Your task to perform on an android device: open app "Messages" (install if not already installed) and enter user name: "Hersey@inbox.com" and password: "facings" Image 0: 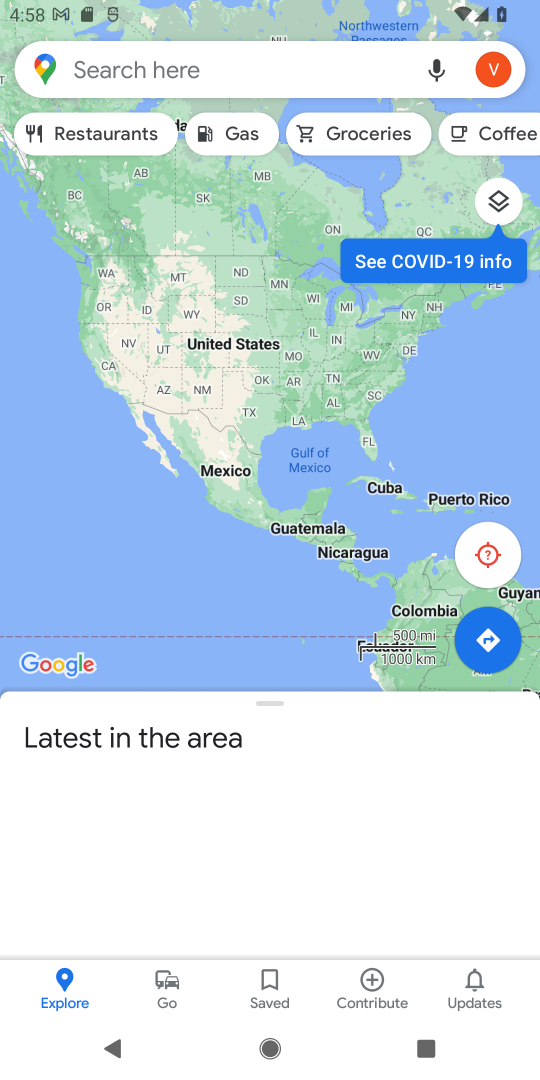
Step 0: press home button
Your task to perform on an android device: open app "Messages" (install if not already installed) and enter user name: "Hersey@inbox.com" and password: "facings" Image 1: 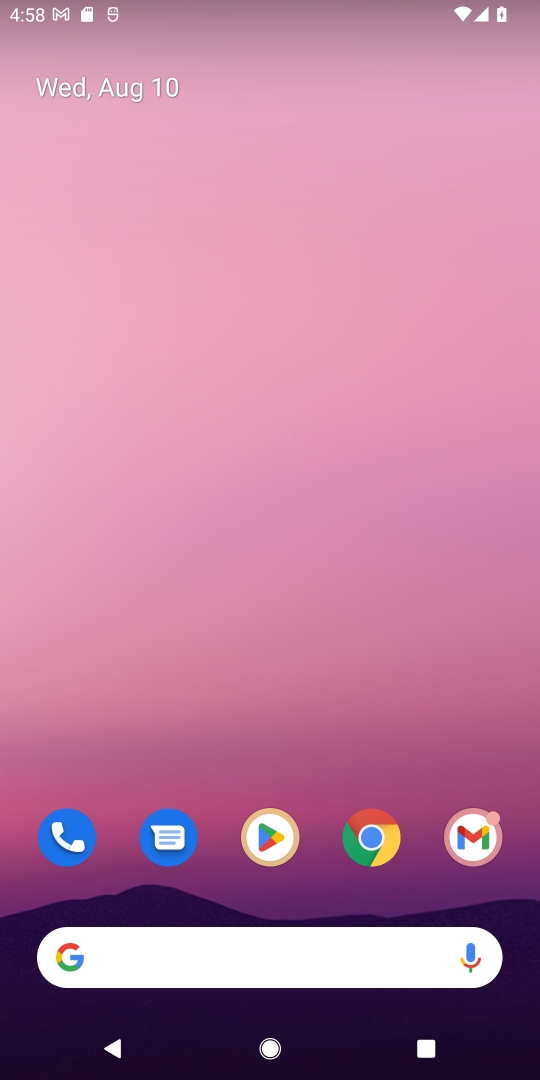
Step 1: click (278, 841)
Your task to perform on an android device: open app "Messages" (install if not already installed) and enter user name: "Hersey@inbox.com" and password: "facings" Image 2: 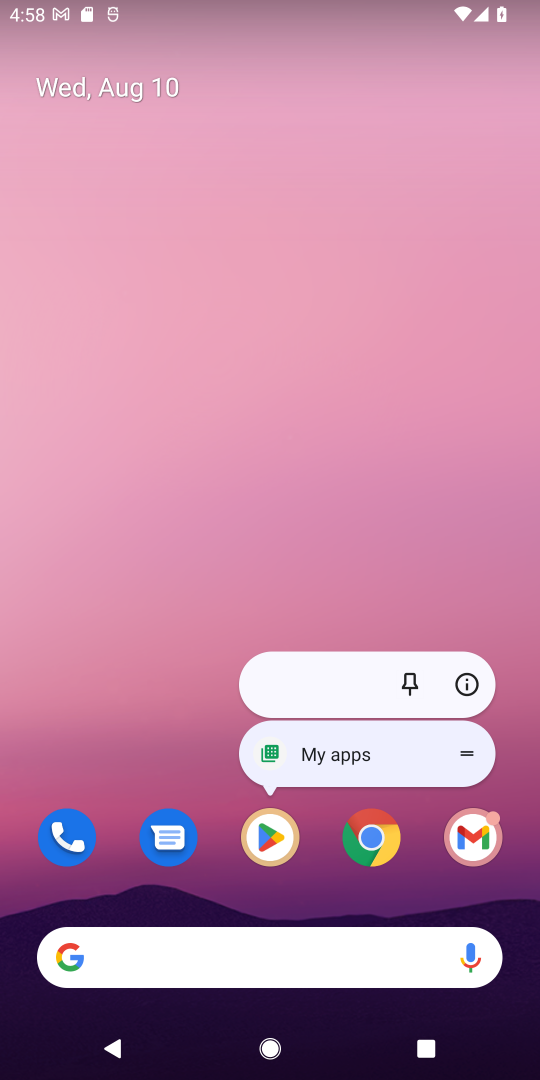
Step 2: click (266, 836)
Your task to perform on an android device: open app "Messages" (install if not already installed) and enter user name: "Hersey@inbox.com" and password: "facings" Image 3: 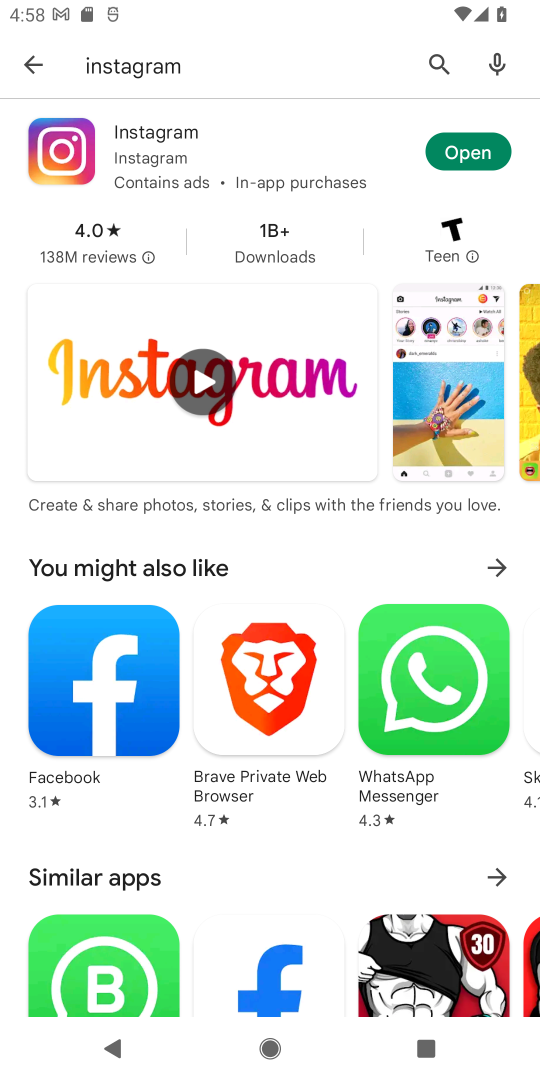
Step 3: click (433, 67)
Your task to perform on an android device: open app "Messages" (install if not already installed) and enter user name: "Hersey@inbox.com" and password: "facings" Image 4: 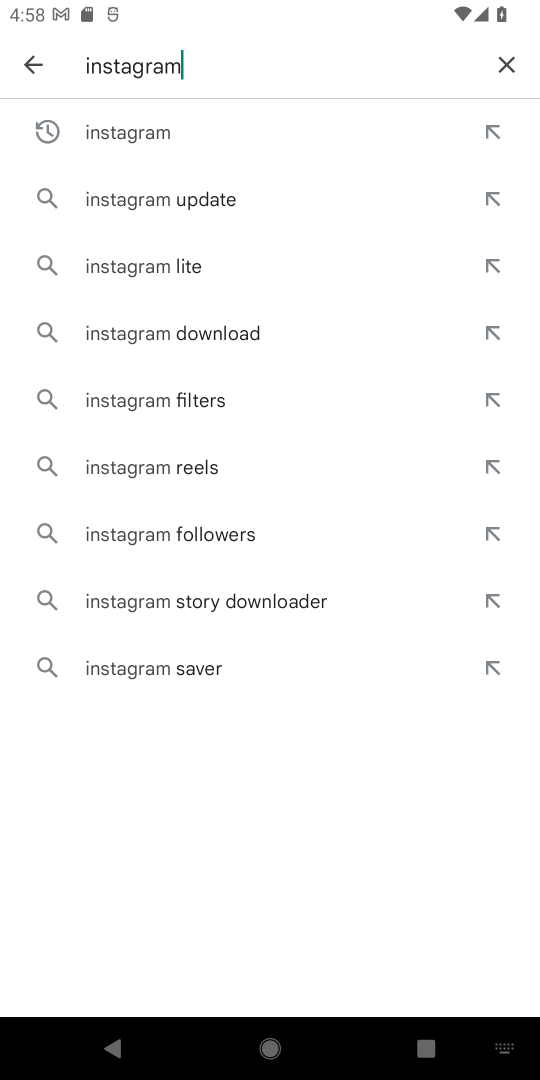
Step 4: click (509, 67)
Your task to perform on an android device: open app "Messages" (install if not already installed) and enter user name: "Hersey@inbox.com" and password: "facings" Image 5: 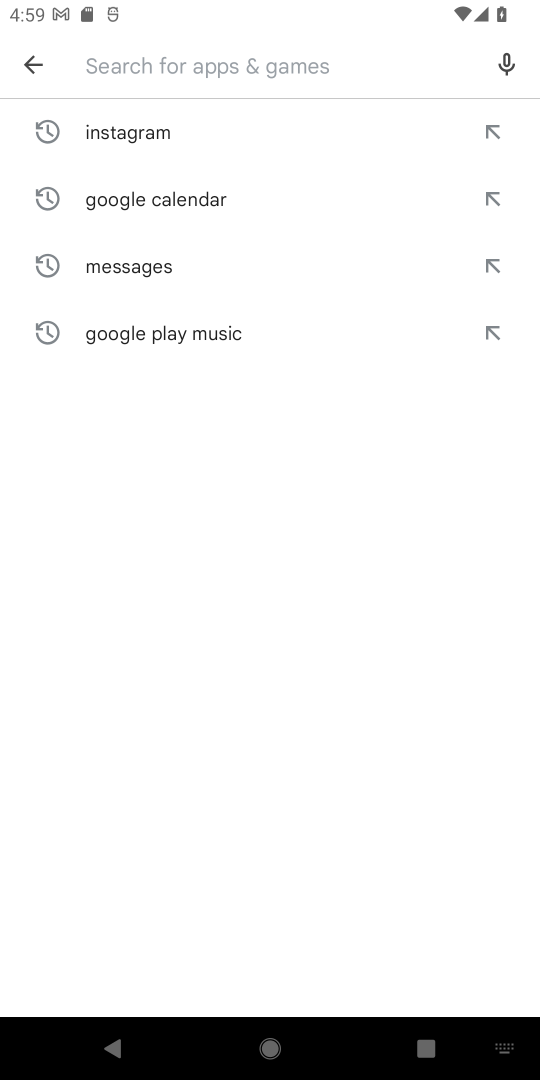
Step 5: type "Messages"
Your task to perform on an android device: open app "Messages" (install if not already installed) and enter user name: "Hersey@inbox.com" and password: "facings" Image 6: 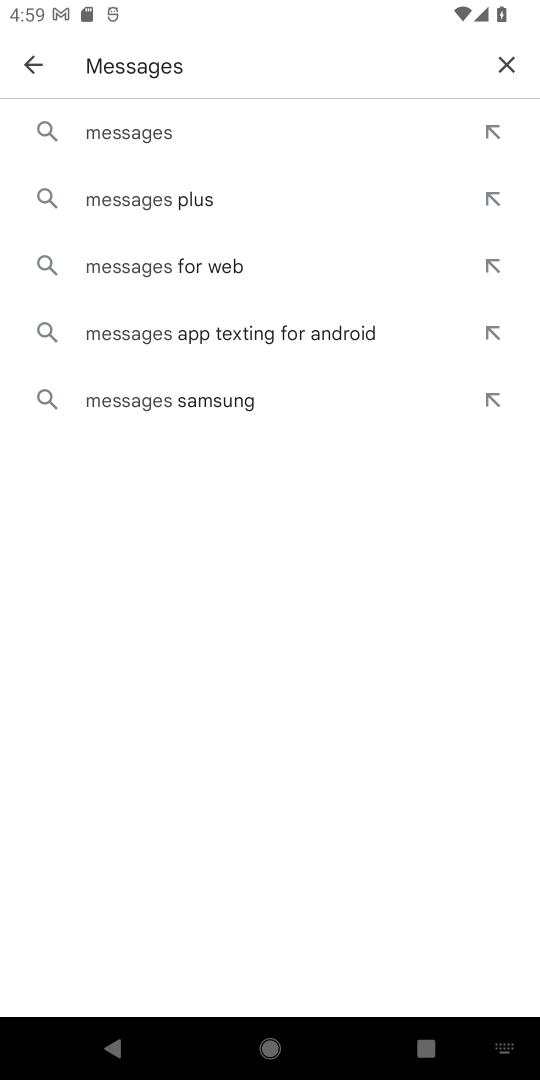
Step 6: click (93, 132)
Your task to perform on an android device: open app "Messages" (install if not already installed) and enter user name: "Hersey@inbox.com" and password: "facings" Image 7: 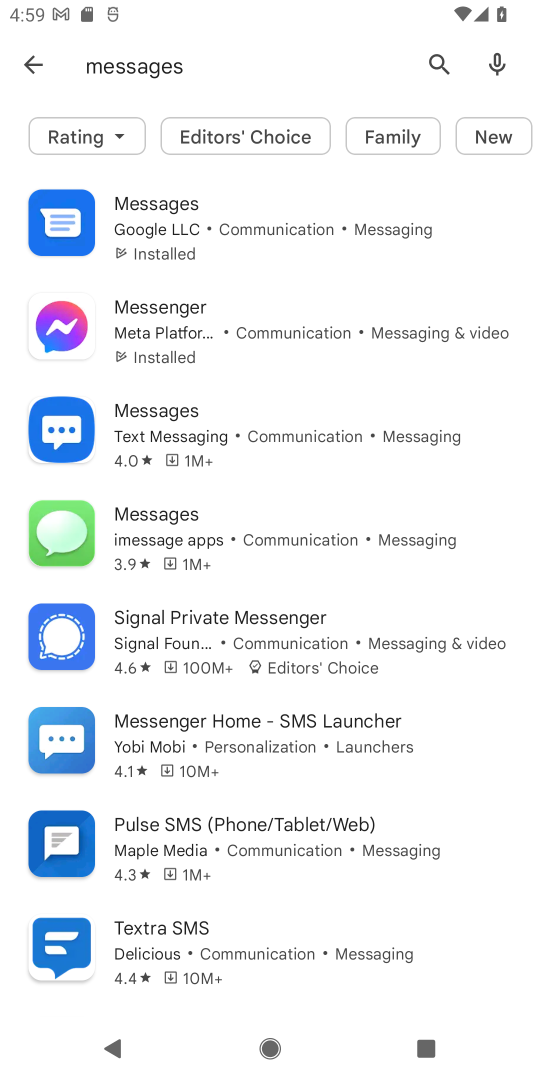
Step 7: click (140, 264)
Your task to perform on an android device: open app "Messages" (install if not already installed) and enter user name: "Hersey@inbox.com" and password: "facings" Image 8: 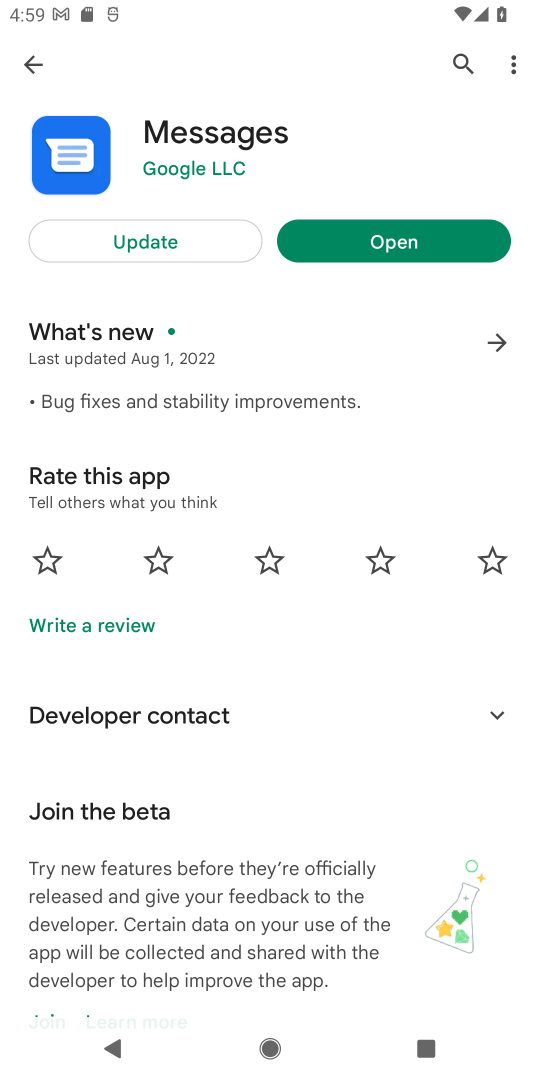
Step 8: click (345, 246)
Your task to perform on an android device: open app "Messages" (install if not already installed) and enter user name: "Hersey@inbox.com" and password: "facings" Image 9: 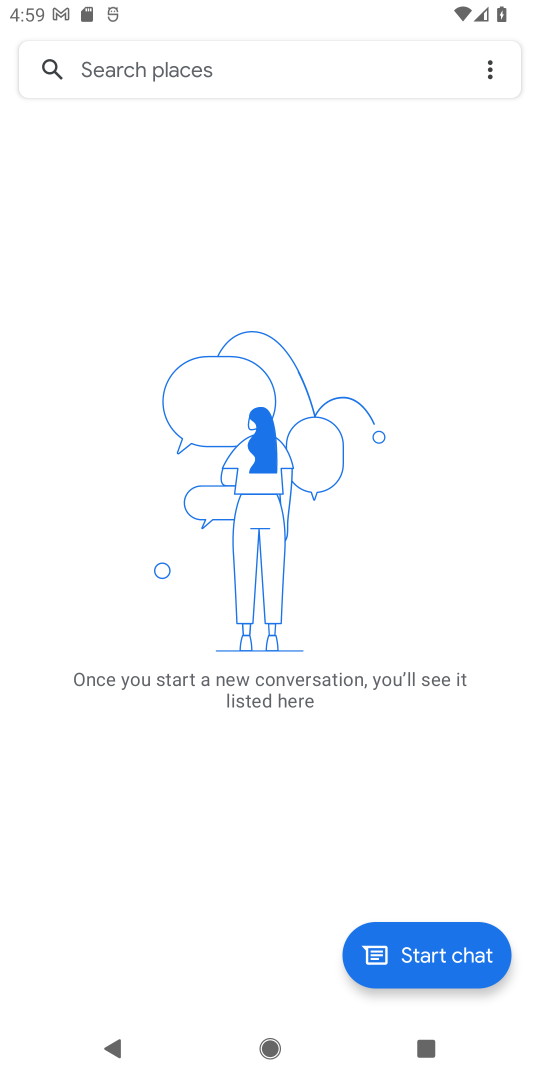
Step 9: task complete